Your task to perform on an android device: change your default location settings in chrome Image 0: 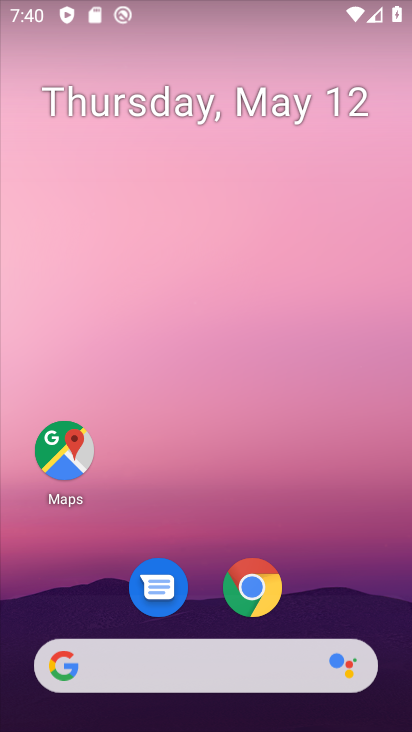
Step 0: drag from (331, 609) to (323, 149)
Your task to perform on an android device: change your default location settings in chrome Image 1: 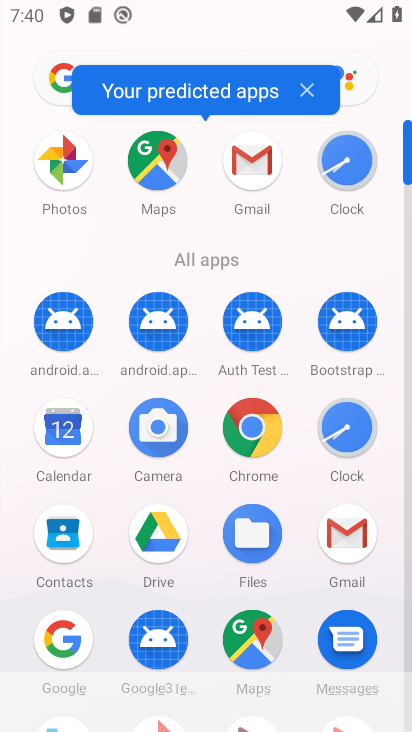
Step 1: click (255, 430)
Your task to perform on an android device: change your default location settings in chrome Image 2: 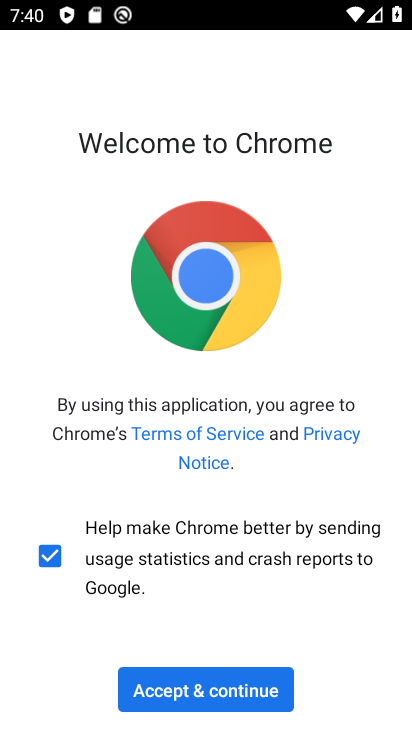
Step 2: click (194, 677)
Your task to perform on an android device: change your default location settings in chrome Image 3: 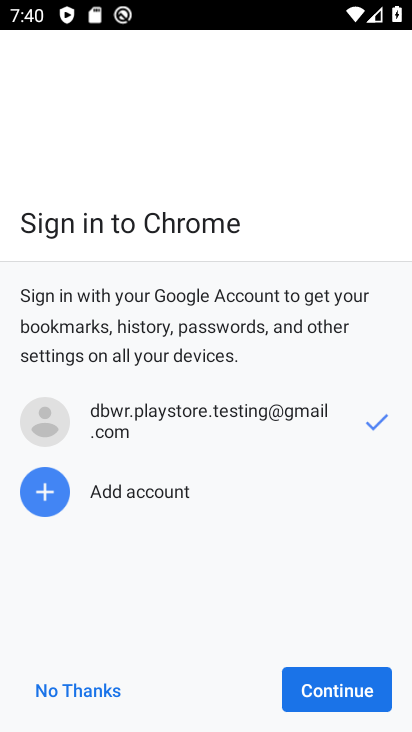
Step 3: click (359, 684)
Your task to perform on an android device: change your default location settings in chrome Image 4: 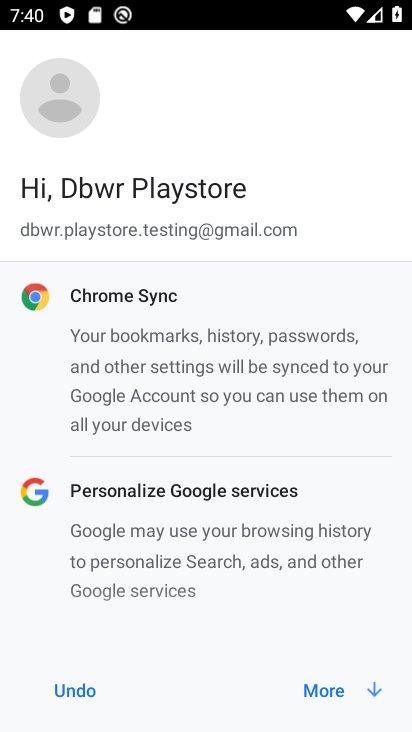
Step 4: click (318, 697)
Your task to perform on an android device: change your default location settings in chrome Image 5: 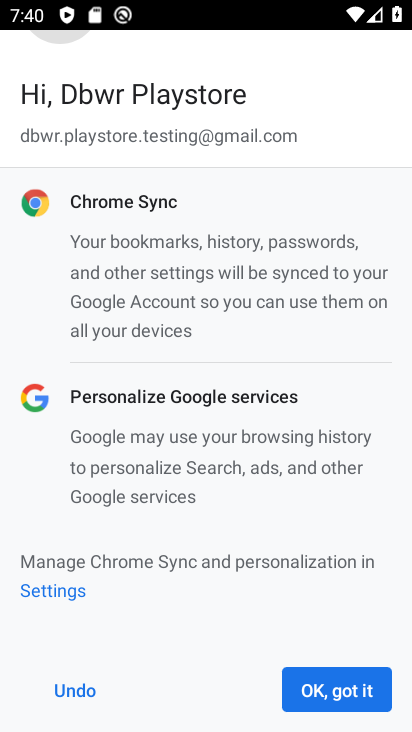
Step 5: click (342, 686)
Your task to perform on an android device: change your default location settings in chrome Image 6: 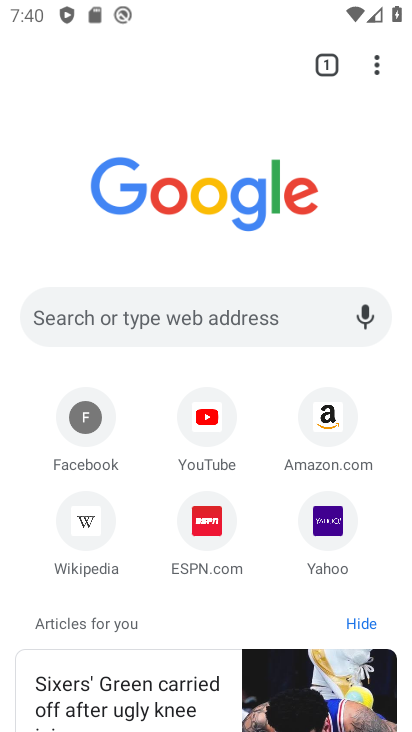
Step 6: click (364, 61)
Your task to perform on an android device: change your default location settings in chrome Image 7: 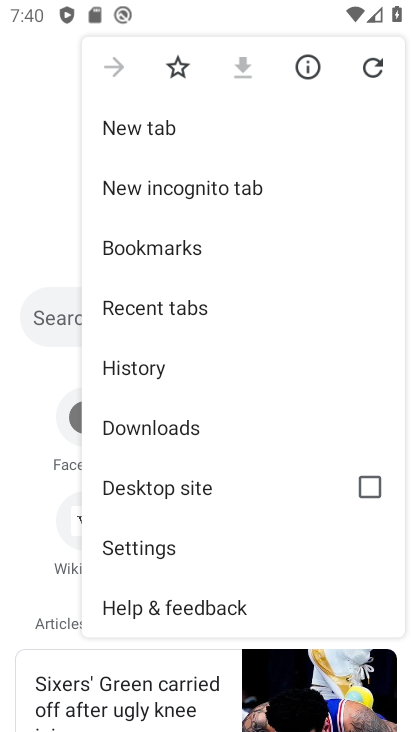
Step 7: drag from (163, 535) to (247, 213)
Your task to perform on an android device: change your default location settings in chrome Image 8: 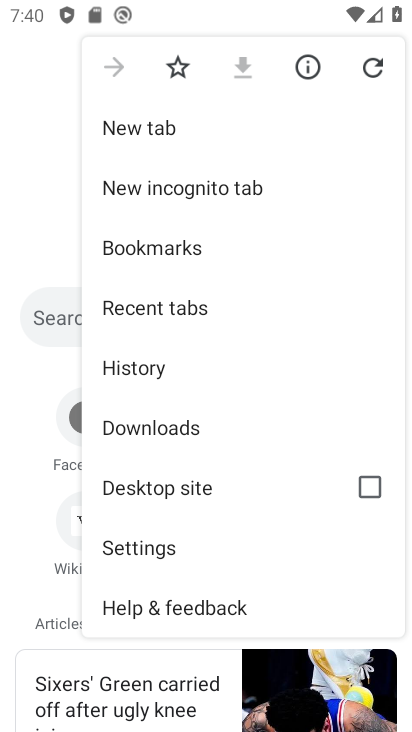
Step 8: click (181, 543)
Your task to perform on an android device: change your default location settings in chrome Image 9: 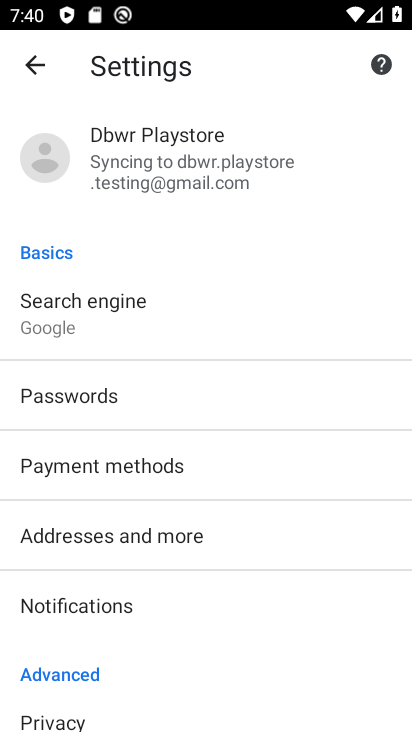
Step 9: click (123, 322)
Your task to perform on an android device: change your default location settings in chrome Image 10: 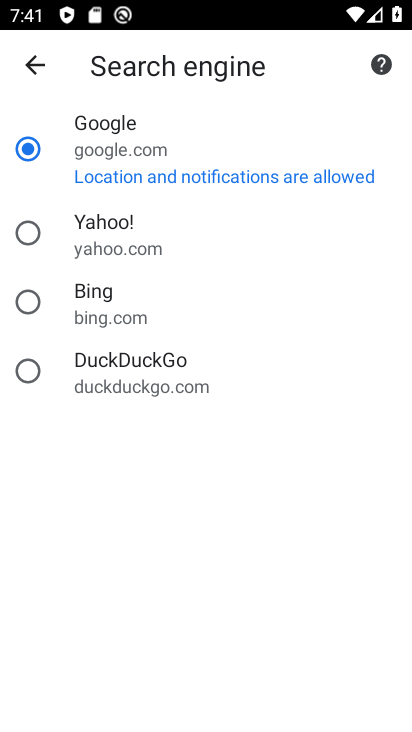
Step 10: click (99, 298)
Your task to perform on an android device: change your default location settings in chrome Image 11: 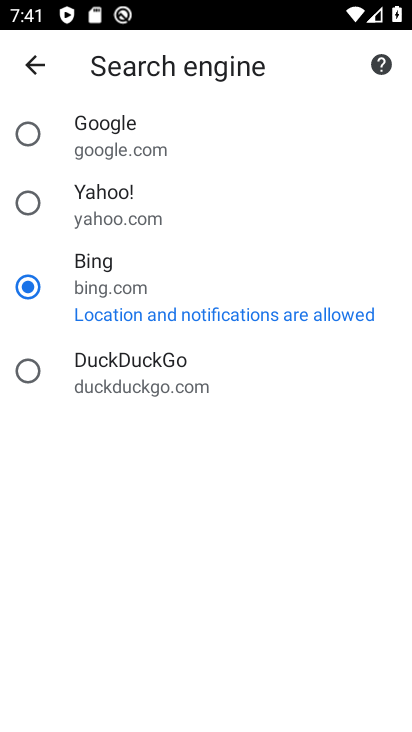
Step 11: task complete